Your task to perform on an android device: Empty the shopping cart on costco. Add razer blade to the cart on costco Image 0: 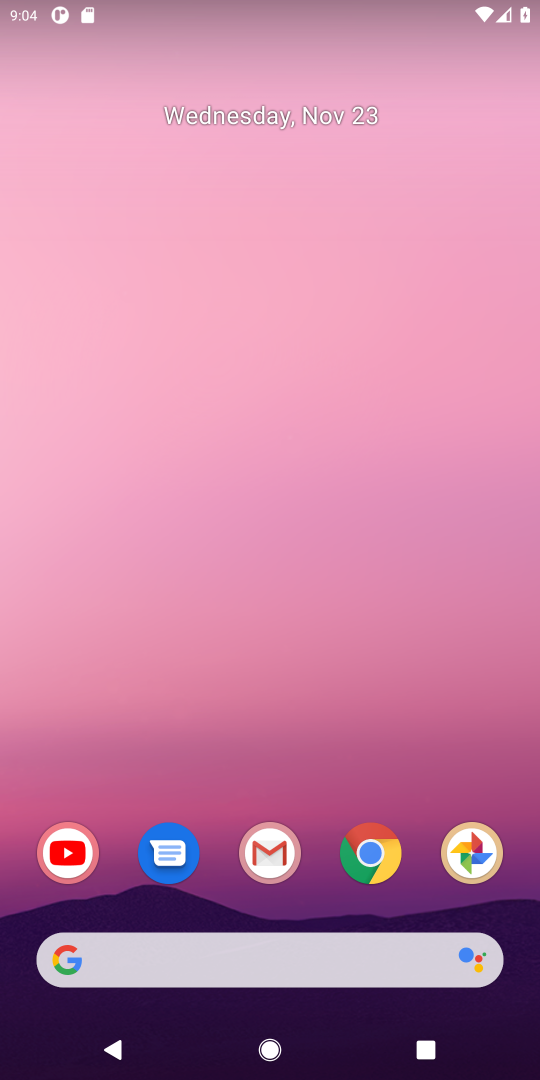
Step 0: click (378, 856)
Your task to perform on an android device: Empty the shopping cart on costco. Add razer blade to the cart on costco Image 1: 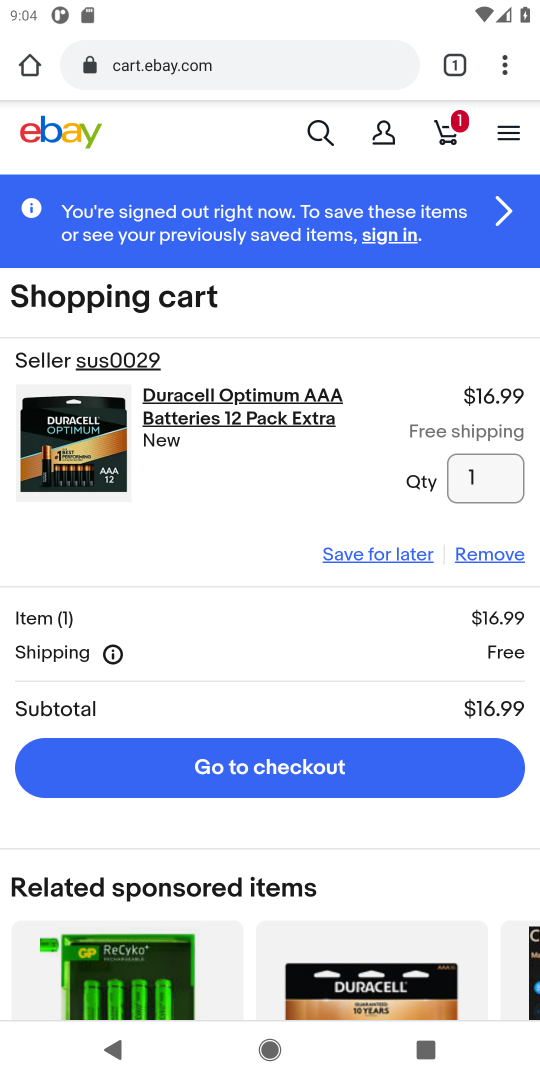
Step 1: click (202, 67)
Your task to perform on an android device: Empty the shopping cart on costco. Add razer blade to the cart on costco Image 2: 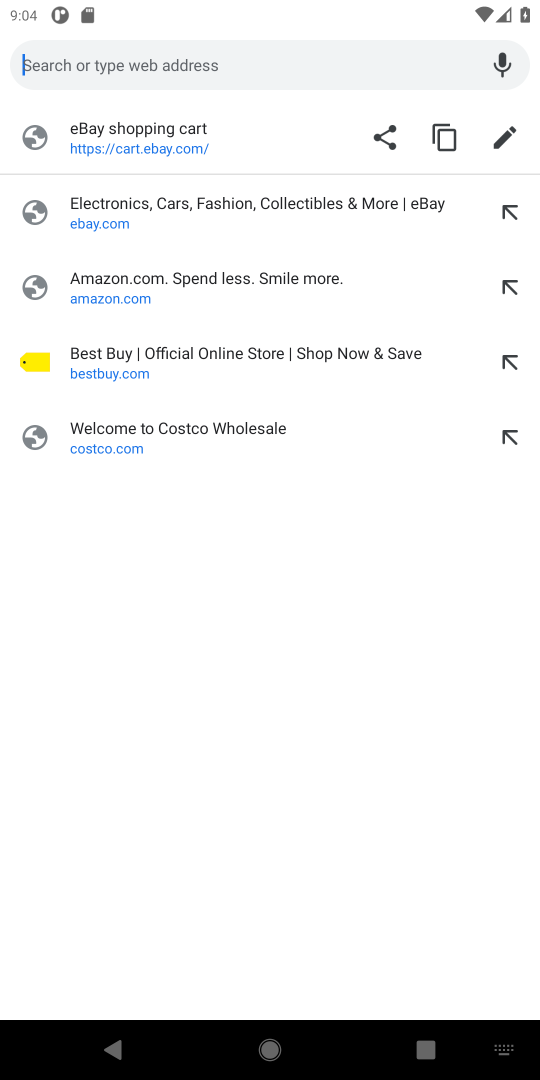
Step 2: click (111, 443)
Your task to perform on an android device: Empty the shopping cart on costco. Add razer blade to the cart on costco Image 3: 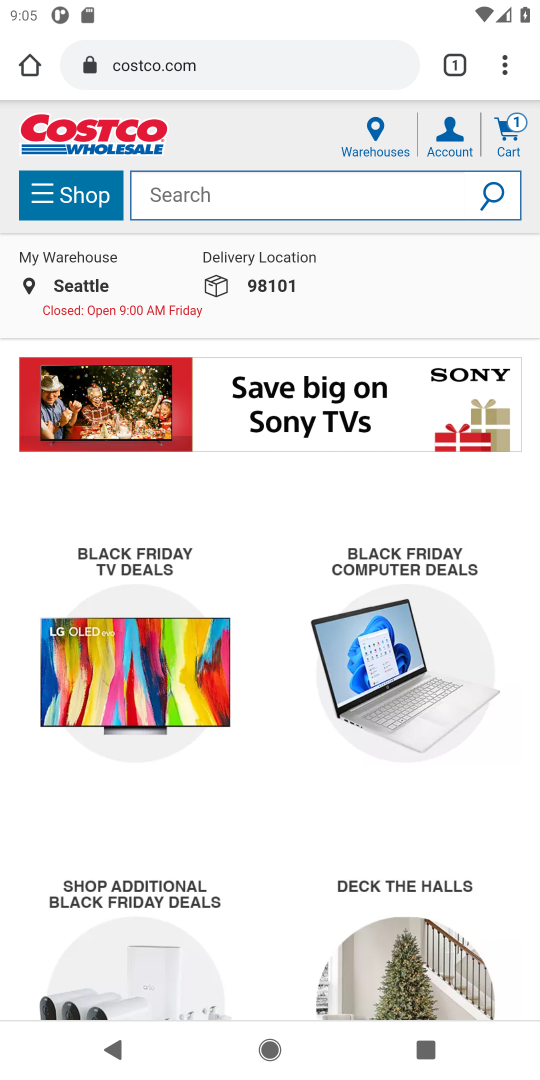
Step 3: click (519, 134)
Your task to perform on an android device: Empty the shopping cart on costco. Add razer blade to the cart on costco Image 4: 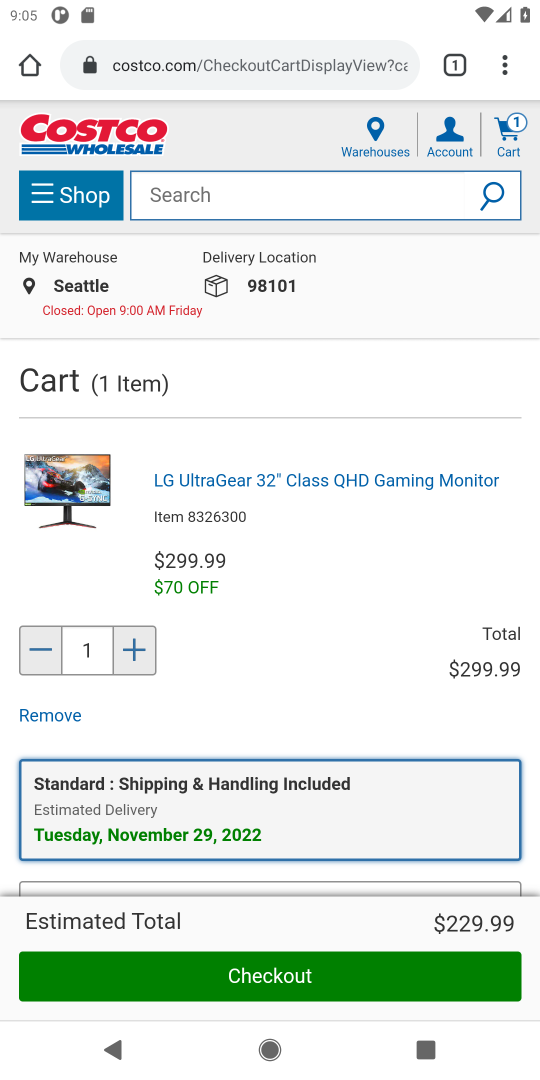
Step 4: drag from (208, 641) to (207, 280)
Your task to perform on an android device: Empty the shopping cart on costco. Add razer blade to the cart on costco Image 5: 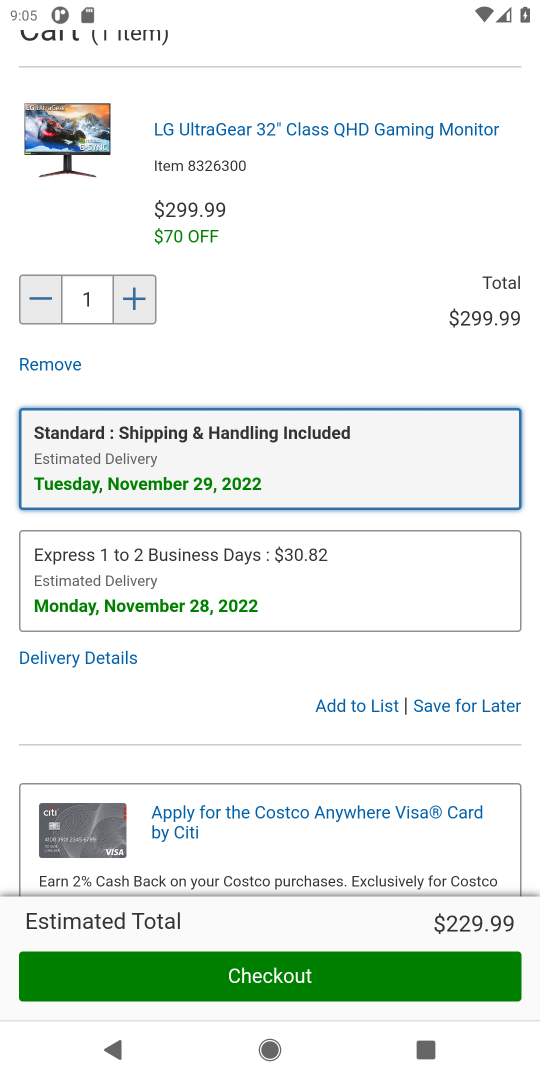
Step 5: click (450, 707)
Your task to perform on an android device: Empty the shopping cart on costco. Add razer blade to the cart on costco Image 6: 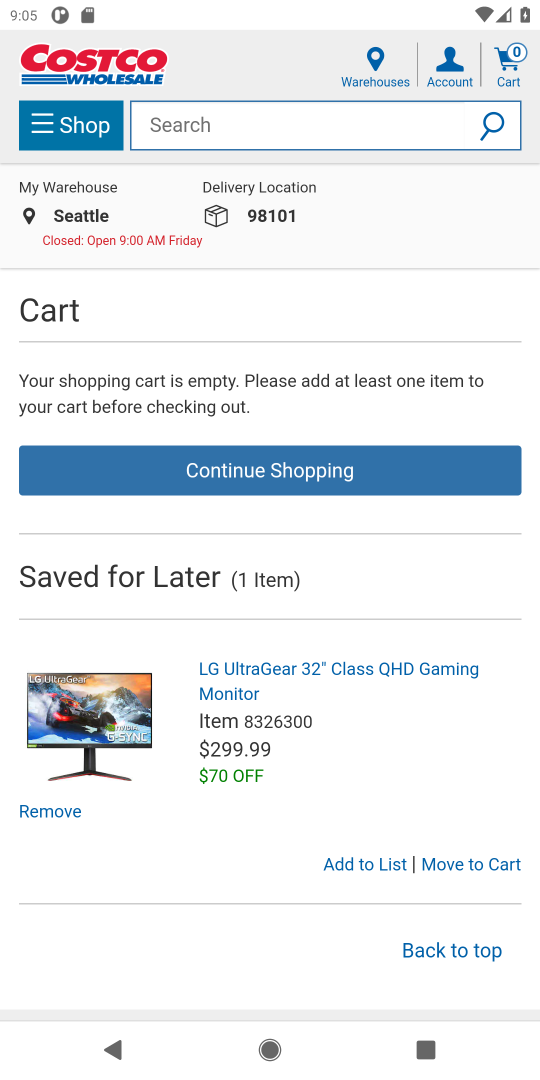
Step 6: click (248, 125)
Your task to perform on an android device: Empty the shopping cart on costco. Add razer blade to the cart on costco Image 7: 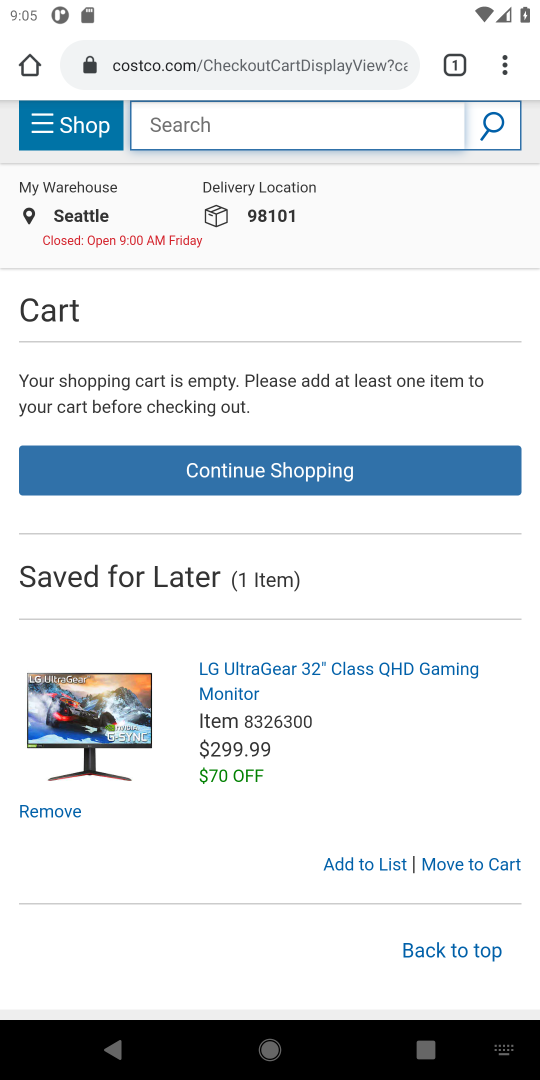
Step 7: type "razer blade"
Your task to perform on an android device: Empty the shopping cart on costco. Add razer blade to the cart on costco Image 8: 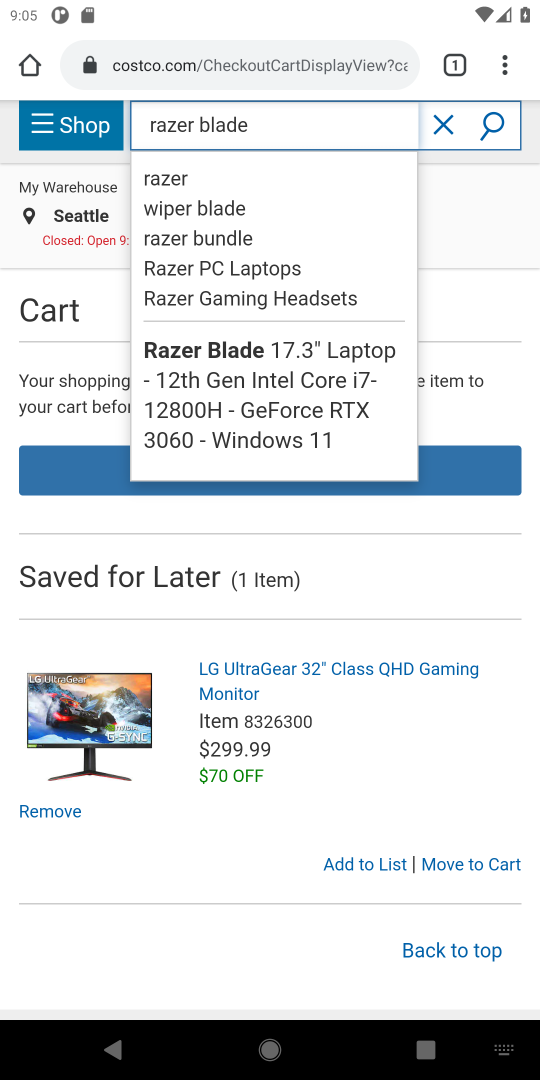
Step 8: click (485, 124)
Your task to perform on an android device: Empty the shopping cart on costco. Add razer blade to the cart on costco Image 9: 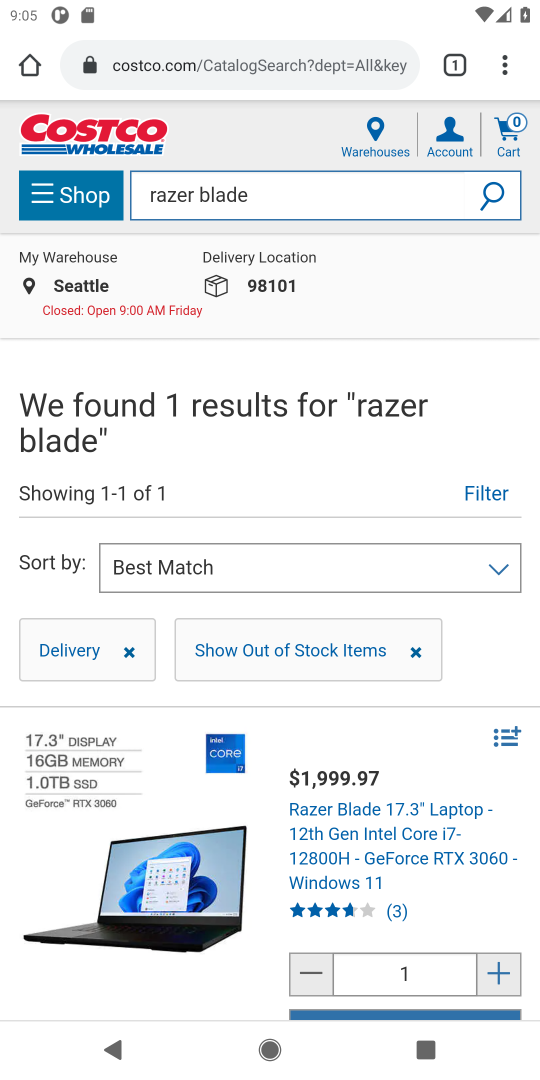
Step 9: drag from (186, 632) to (218, 384)
Your task to perform on an android device: Empty the shopping cart on costco. Add razer blade to the cart on costco Image 10: 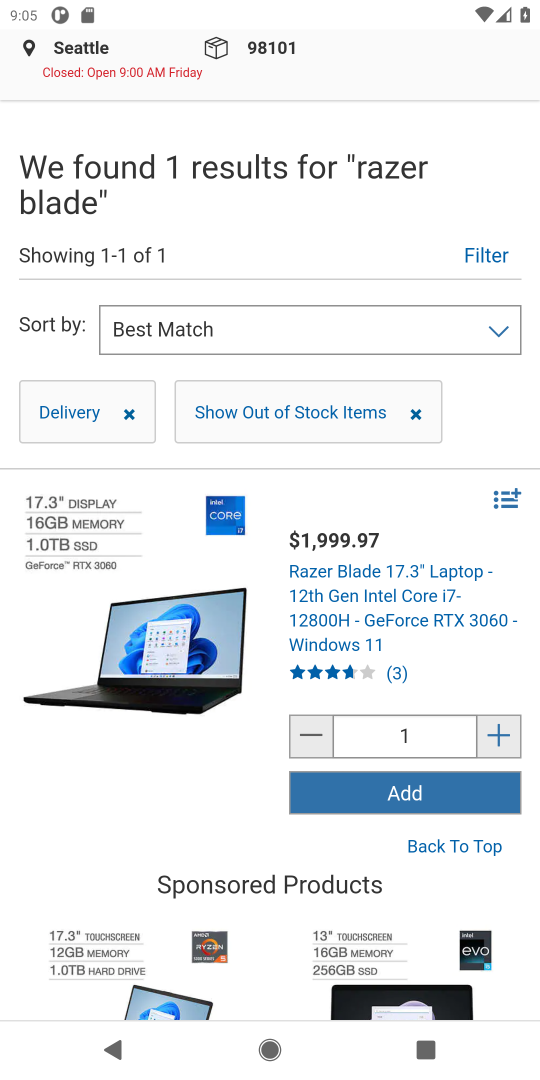
Step 10: click (404, 789)
Your task to perform on an android device: Empty the shopping cart on costco. Add razer blade to the cart on costco Image 11: 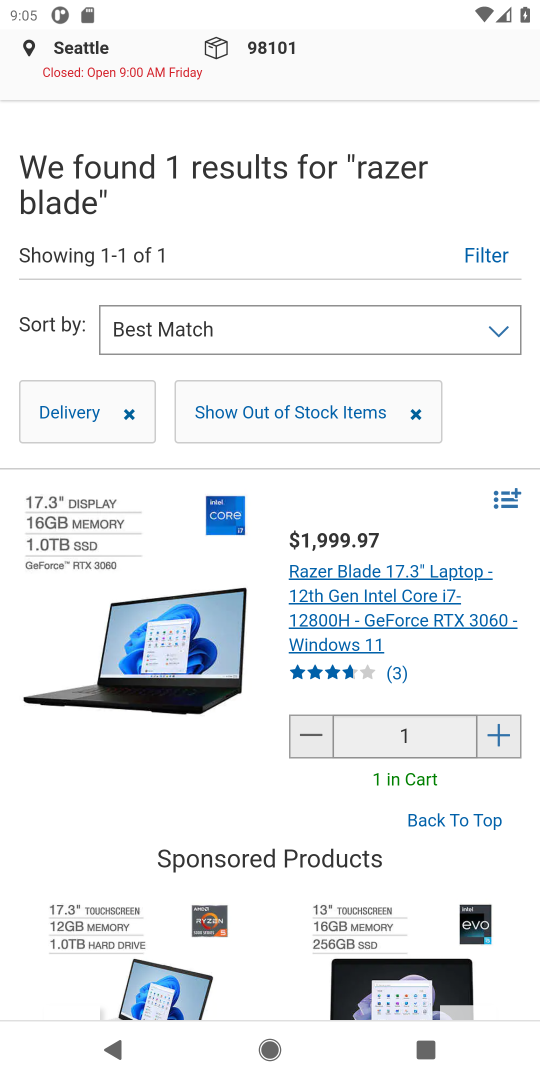
Step 11: task complete